Your task to perform on an android device: turn on notifications settings in the gmail app Image 0: 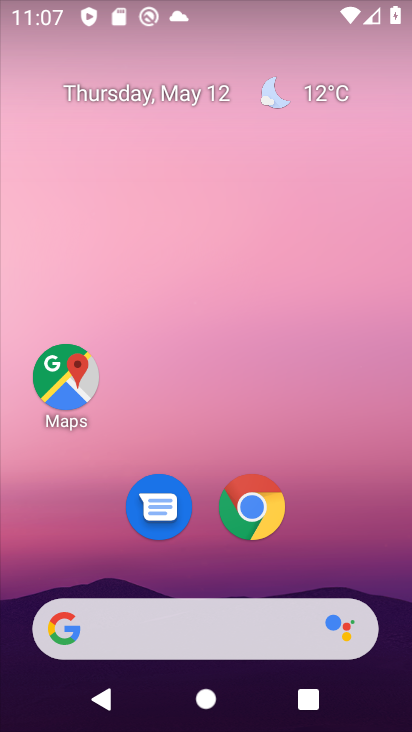
Step 0: drag from (200, 563) to (231, 41)
Your task to perform on an android device: turn on notifications settings in the gmail app Image 1: 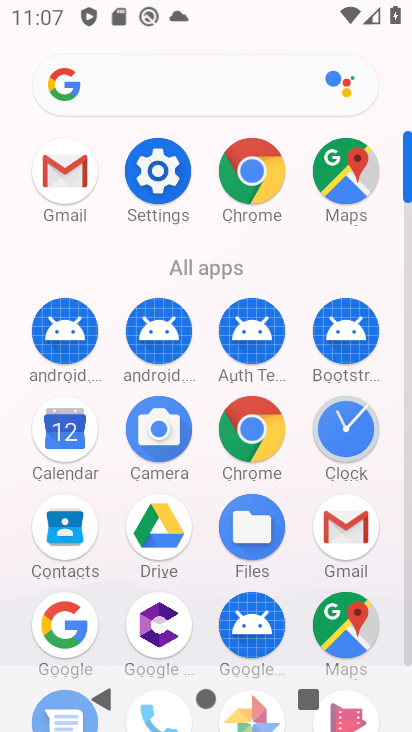
Step 1: click (349, 541)
Your task to perform on an android device: turn on notifications settings in the gmail app Image 2: 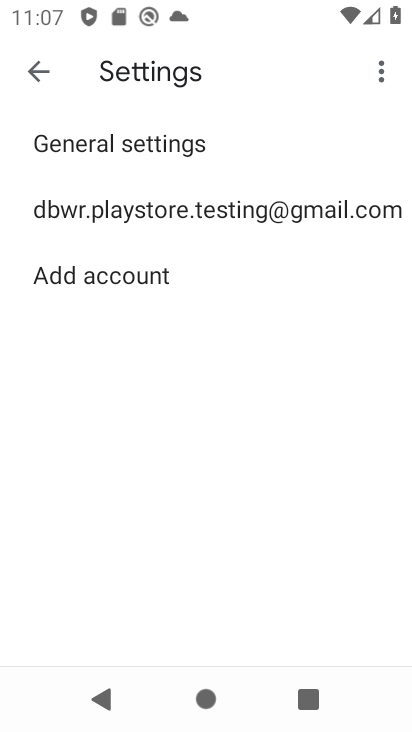
Step 2: click (66, 132)
Your task to perform on an android device: turn on notifications settings in the gmail app Image 3: 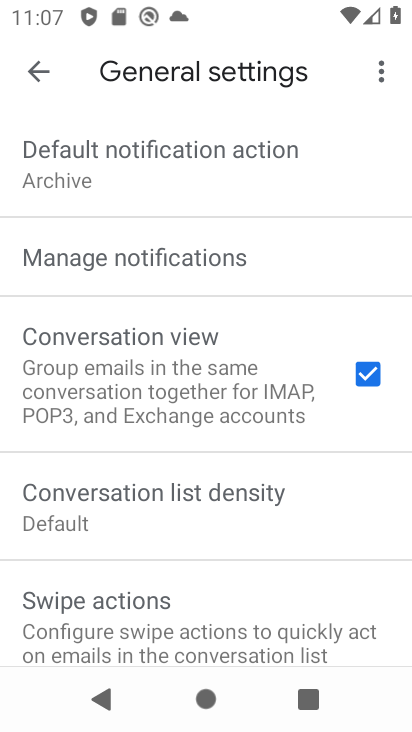
Step 3: click (137, 267)
Your task to perform on an android device: turn on notifications settings in the gmail app Image 4: 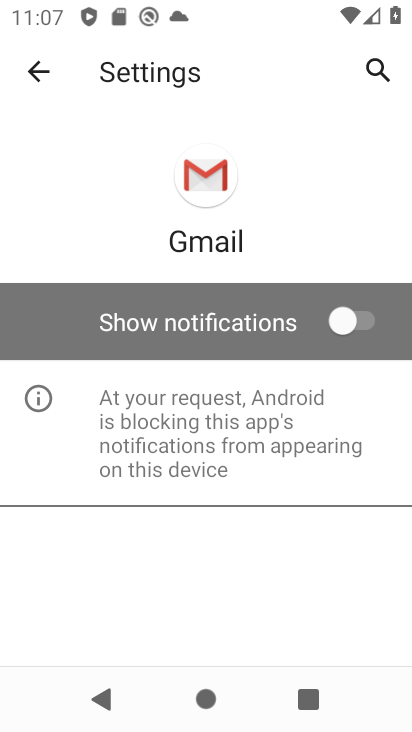
Step 4: click (363, 312)
Your task to perform on an android device: turn on notifications settings in the gmail app Image 5: 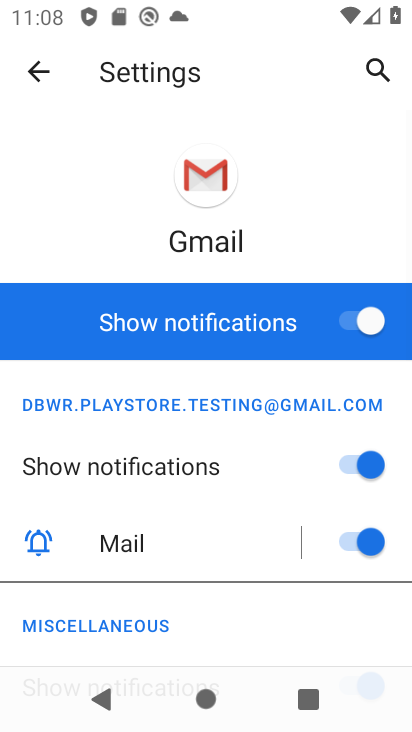
Step 5: task complete